Your task to perform on an android device: Open Android settings Image 0: 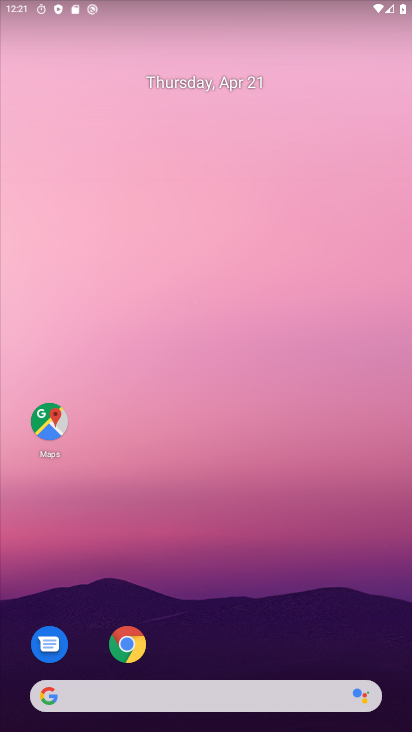
Step 0: drag from (269, 484) to (333, 44)
Your task to perform on an android device: Open Android settings Image 1: 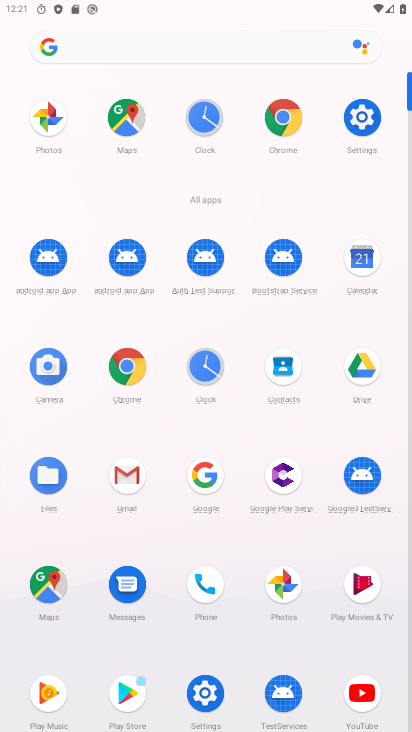
Step 1: click (363, 124)
Your task to perform on an android device: Open Android settings Image 2: 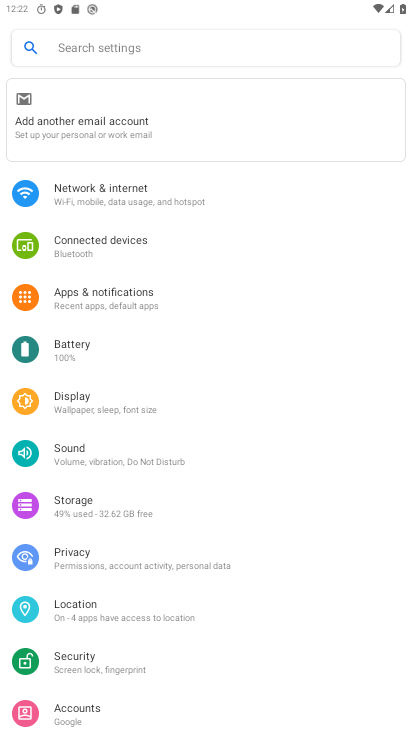
Step 2: drag from (144, 687) to (268, 124)
Your task to perform on an android device: Open Android settings Image 3: 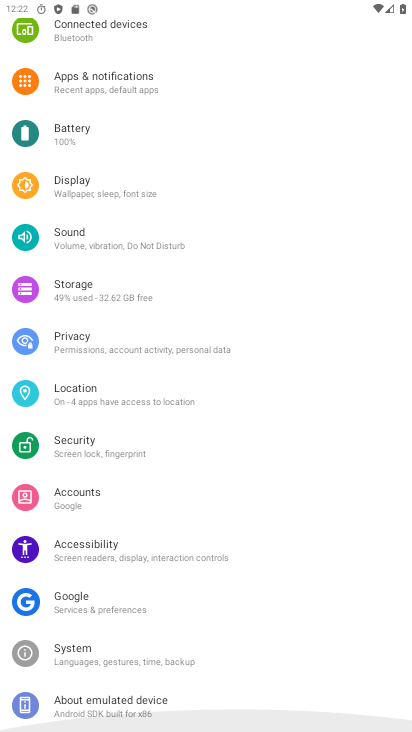
Step 3: drag from (217, 500) to (260, 180)
Your task to perform on an android device: Open Android settings Image 4: 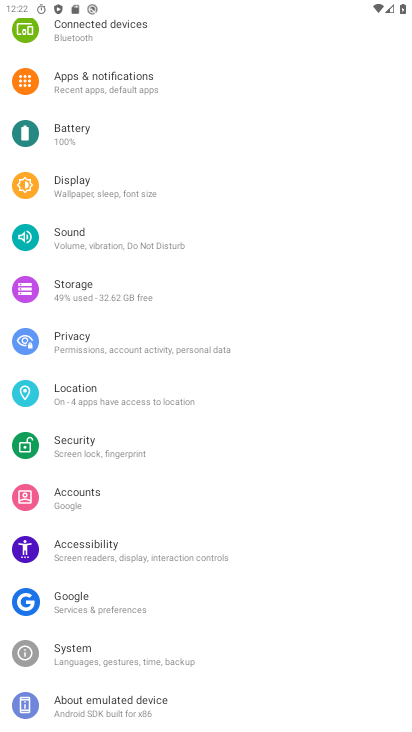
Step 4: click (111, 713)
Your task to perform on an android device: Open Android settings Image 5: 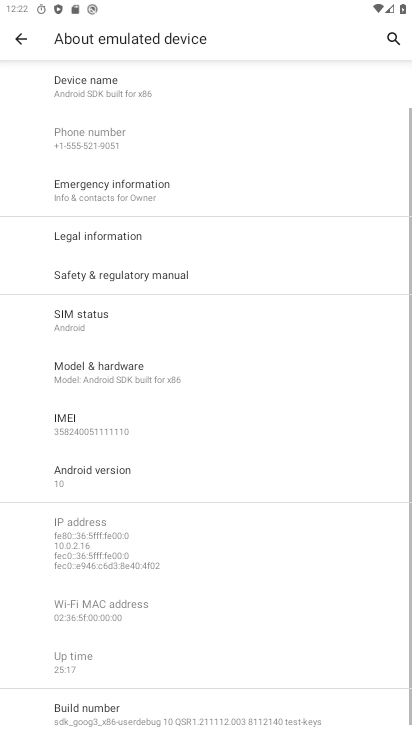
Step 5: click (100, 488)
Your task to perform on an android device: Open Android settings Image 6: 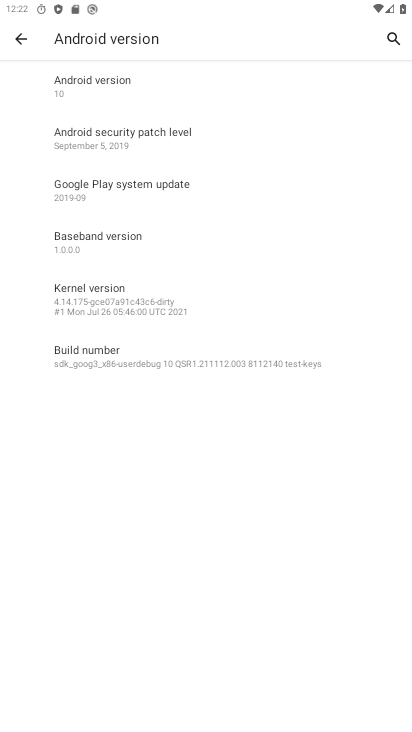
Step 6: click (95, 93)
Your task to perform on an android device: Open Android settings Image 7: 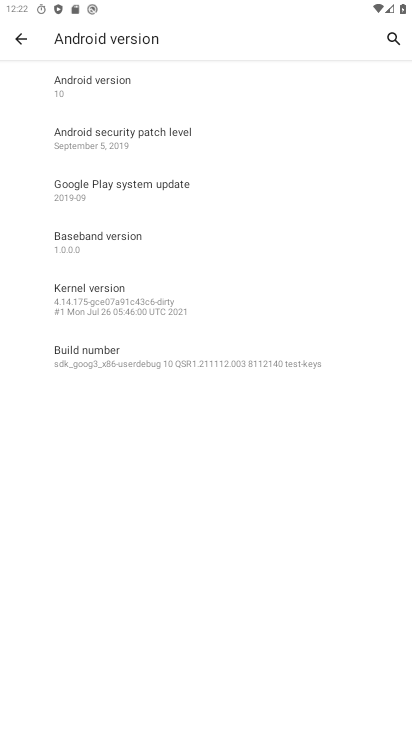
Step 7: task complete